Your task to perform on an android device: Go to Reddit.com Image 0: 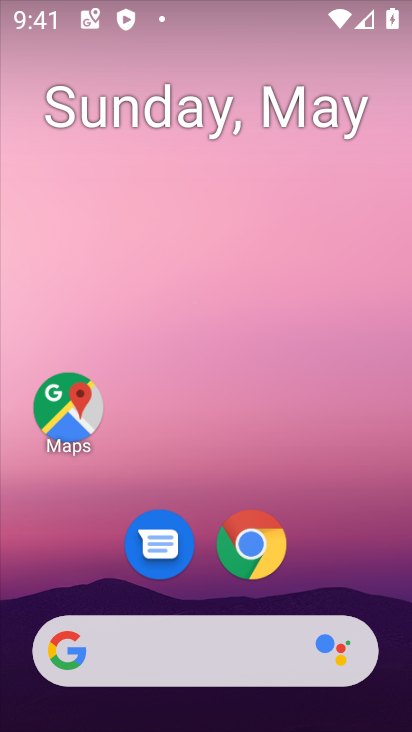
Step 0: click (250, 532)
Your task to perform on an android device: Go to Reddit.com Image 1: 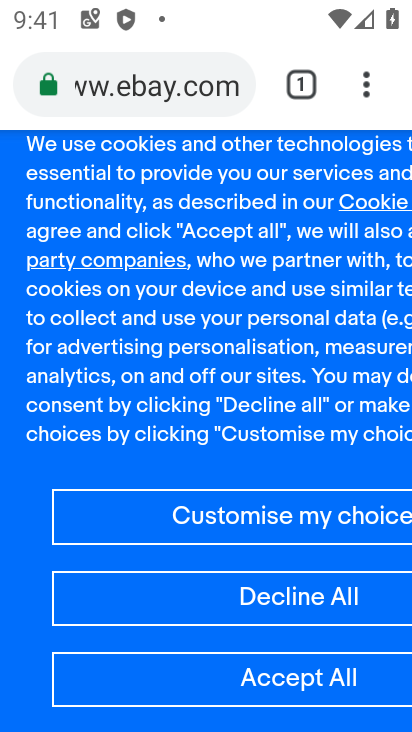
Step 1: click (143, 84)
Your task to perform on an android device: Go to Reddit.com Image 2: 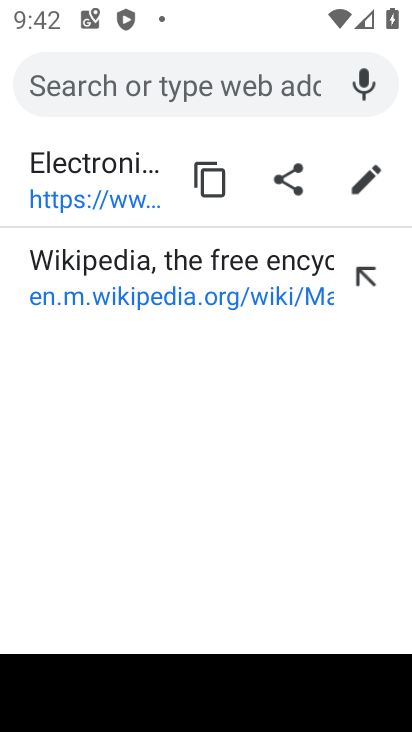
Step 2: type "reddit"
Your task to perform on an android device: Go to Reddit.com Image 3: 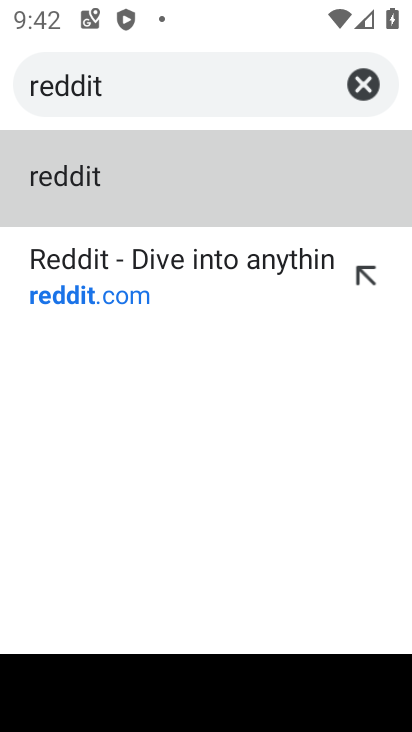
Step 3: click (118, 307)
Your task to perform on an android device: Go to Reddit.com Image 4: 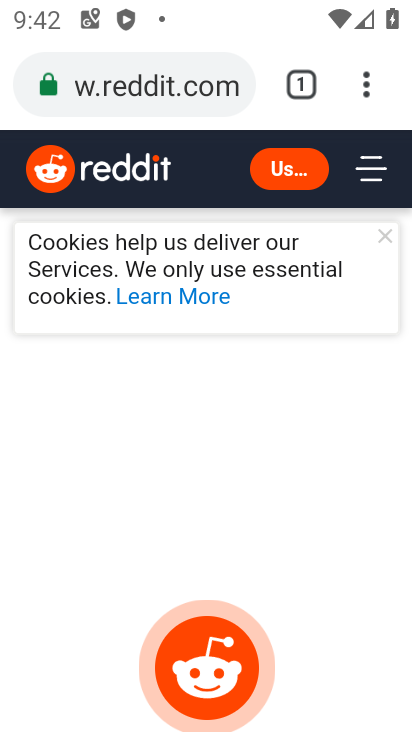
Step 4: task complete